Your task to perform on an android device: turn off notifications settings in the gmail app Image 0: 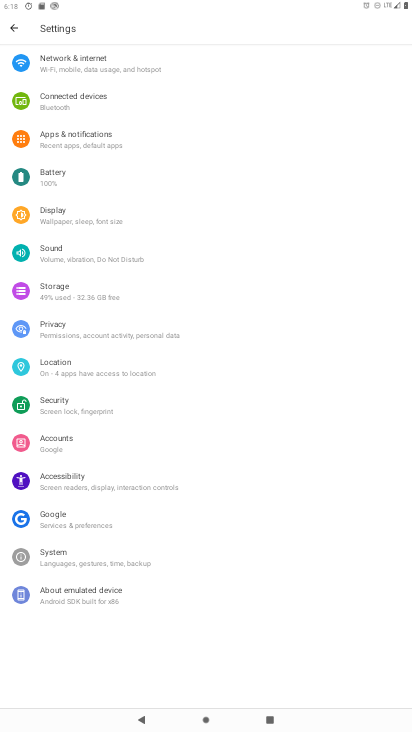
Step 0: press home button
Your task to perform on an android device: turn off notifications settings in the gmail app Image 1: 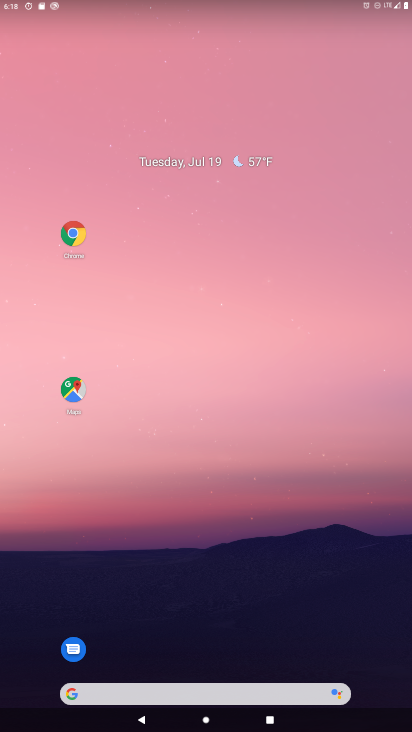
Step 1: drag from (161, 649) to (207, 158)
Your task to perform on an android device: turn off notifications settings in the gmail app Image 2: 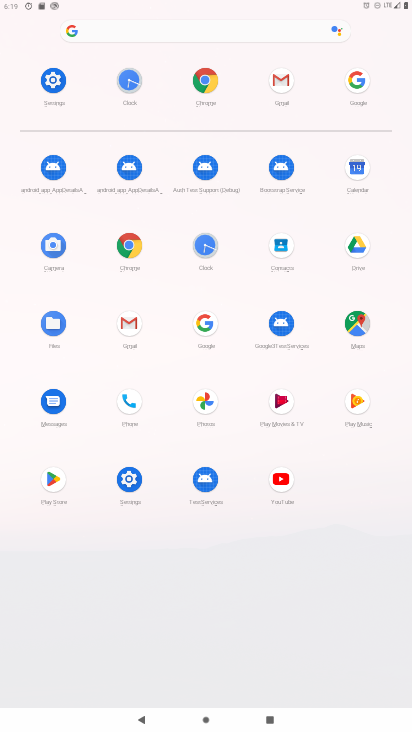
Step 2: click (281, 83)
Your task to perform on an android device: turn off notifications settings in the gmail app Image 3: 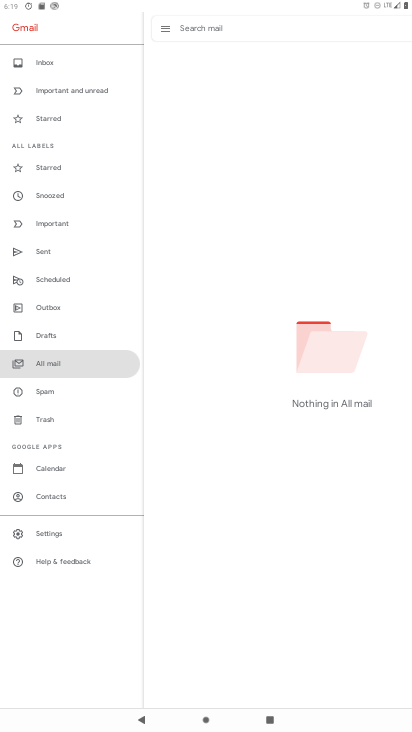
Step 3: click (52, 531)
Your task to perform on an android device: turn off notifications settings in the gmail app Image 4: 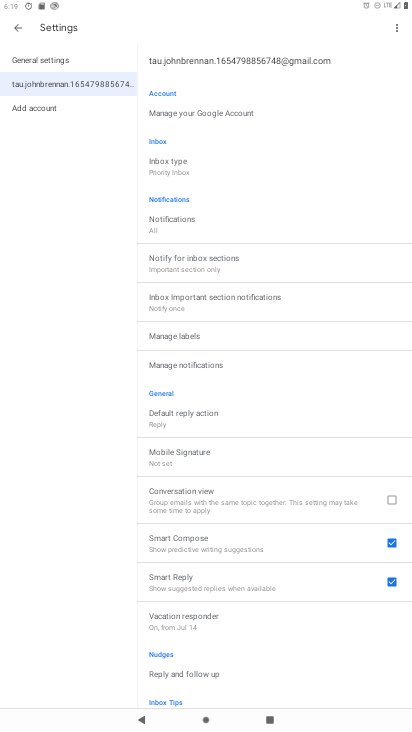
Step 4: click (204, 364)
Your task to perform on an android device: turn off notifications settings in the gmail app Image 5: 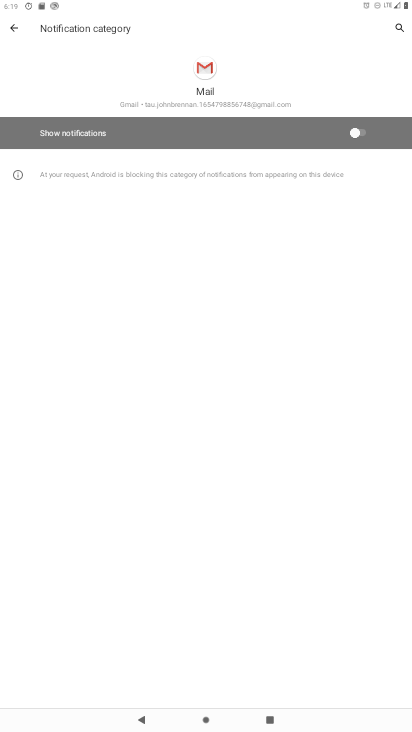
Step 5: task complete